Your task to perform on an android device: make emails show in primary in the gmail app Image 0: 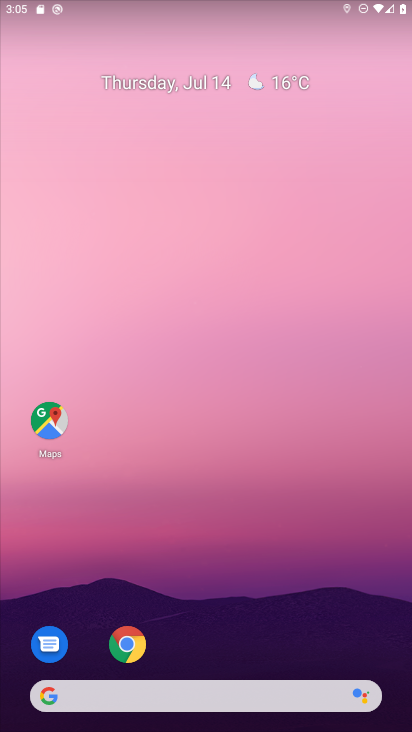
Step 0: drag from (262, 658) to (237, 221)
Your task to perform on an android device: make emails show in primary in the gmail app Image 1: 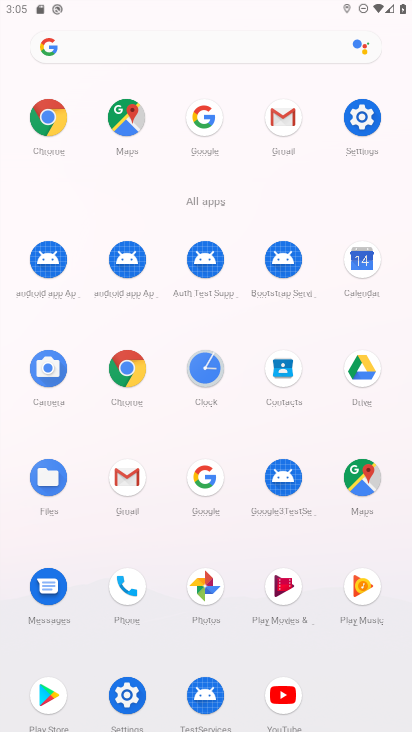
Step 1: click (286, 130)
Your task to perform on an android device: make emails show in primary in the gmail app Image 2: 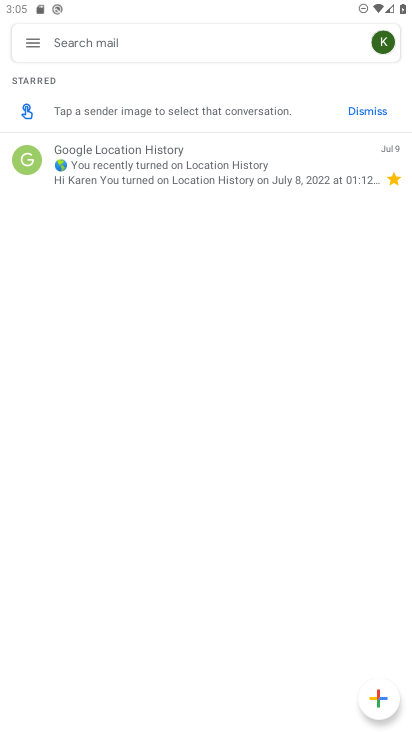
Step 2: click (39, 48)
Your task to perform on an android device: make emails show in primary in the gmail app Image 3: 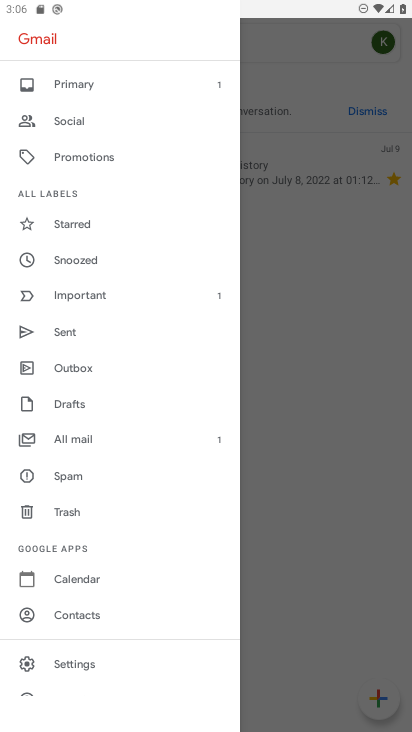
Step 3: click (75, 671)
Your task to perform on an android device: make emails show in primary in the gmail app Image 4: 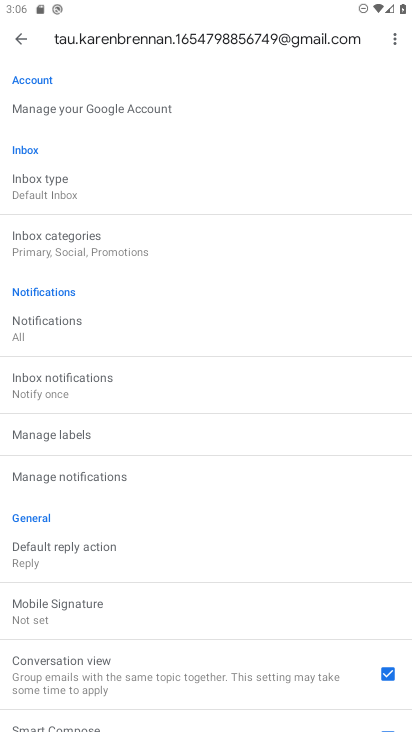
Step 4: click (57, 193)
Your task to perform on an android device: make emails show in primary in the gmail app Image 5: 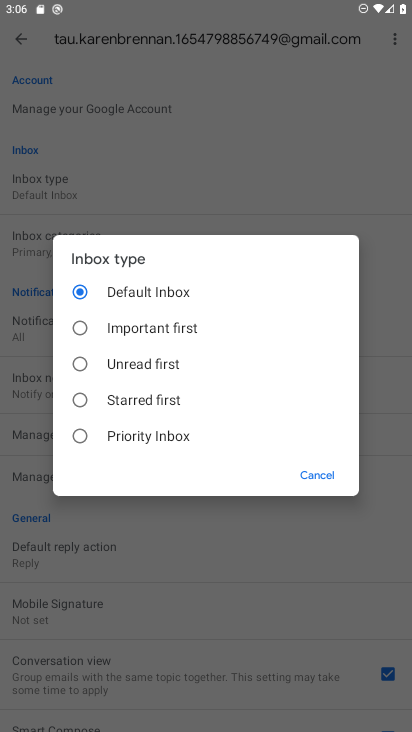
Step 5: task complete